Your task to perform on an android device: see tabs open on other devices in the chrome app Image 0: 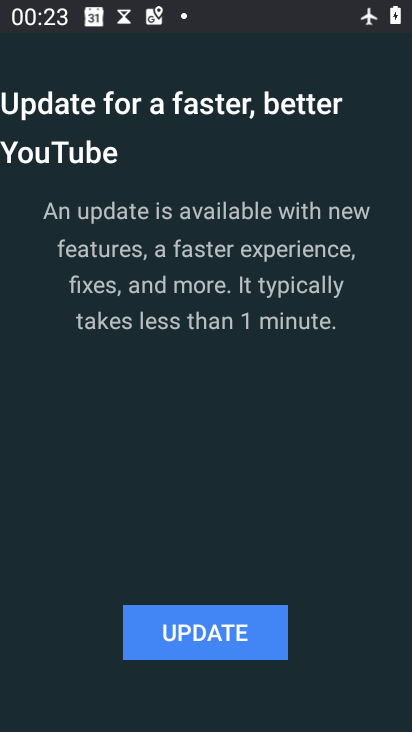
Step 0: press back button
Your task to perform on an android device: see tabs open on other devices in the chrome app Image 1: 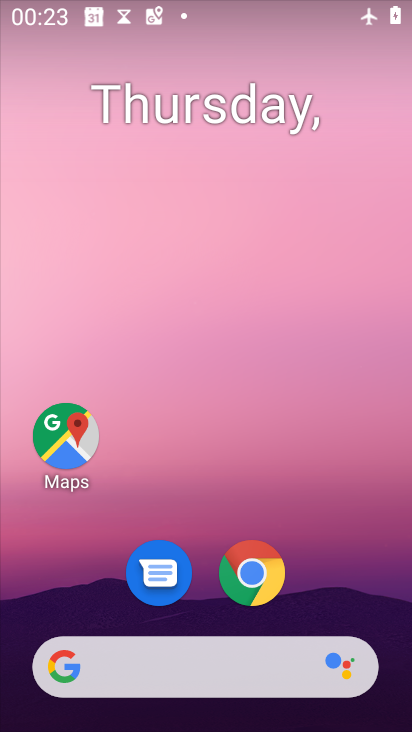
Step 1: drag from (334, 542) to (334, 232)
Your task to perform on an android device: see tabs open on other devices in the chrome app Image 2: 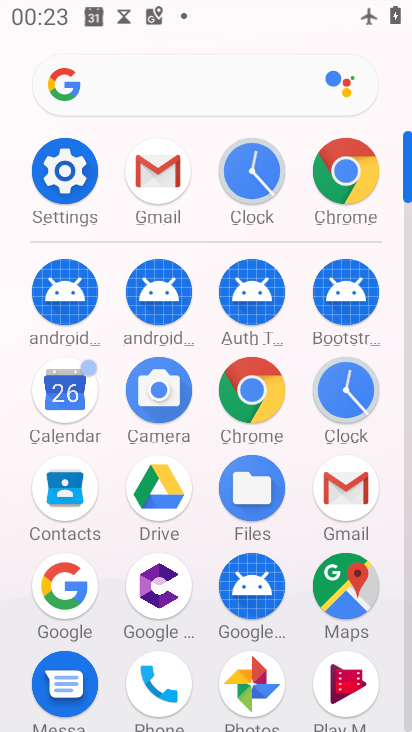
Step 2: click (248, 377)
Your task to perform on an android device: see tabs open on other devices in the chrome app Image 3: 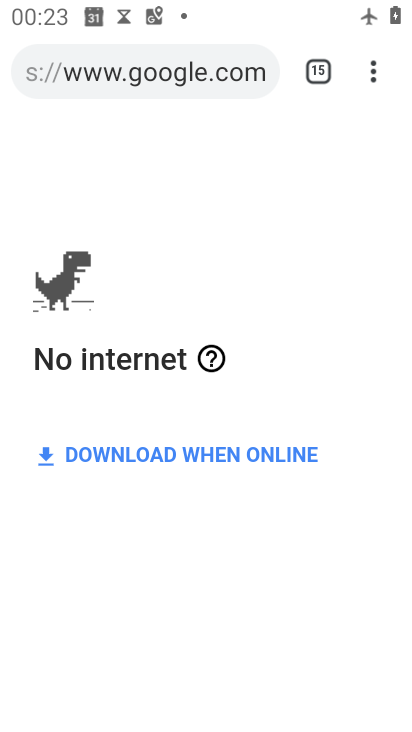
Step 3: click (380, 62)
Your task to perform on an android device: see tabs open on other devices in the chrome app Image 4: 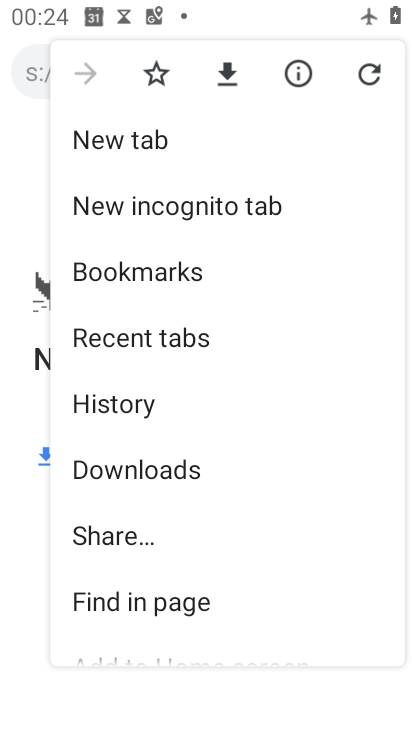
Step 4: click (141, 403)
Your task to perform on an android device: see tabs open on other devices in the chrome app Image 5: 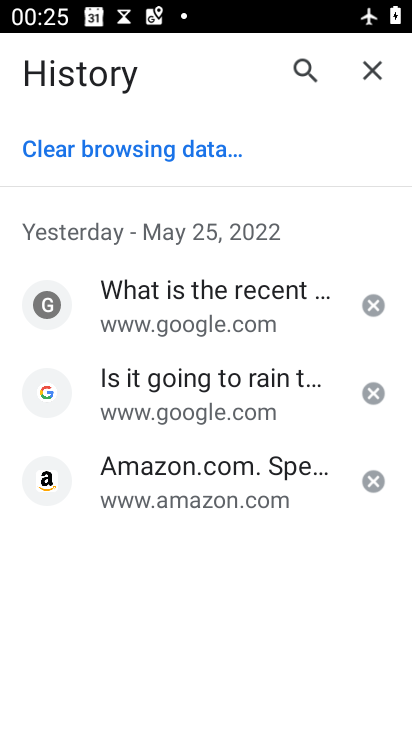
Step 5: task complete